Your task to perform on an android device: uninstall "Venmo" Image 0: 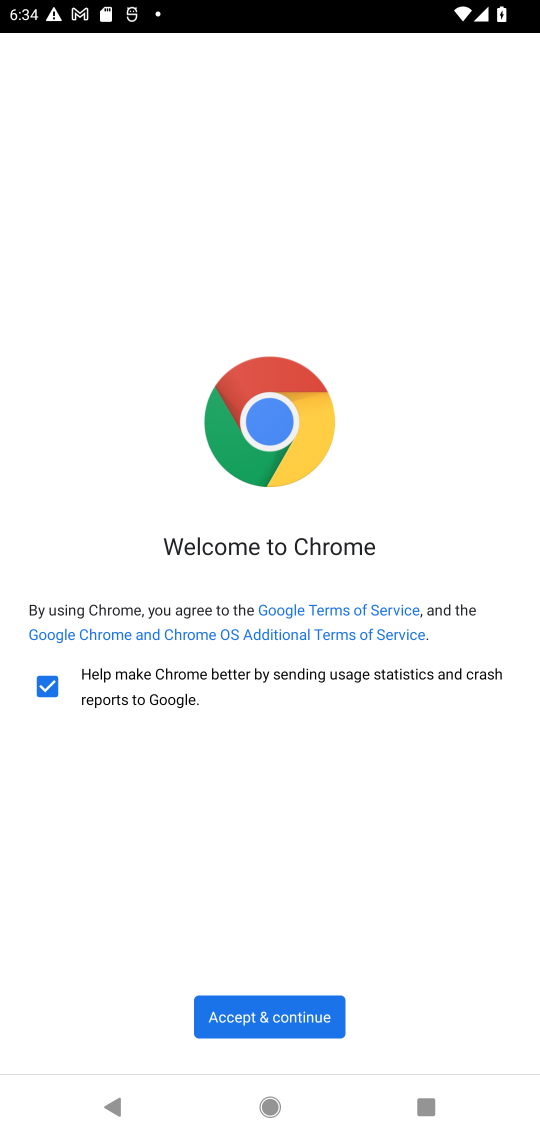
Step 0: press home button
Your task to perform on an android device: uninstall "Venmo" Image 1: 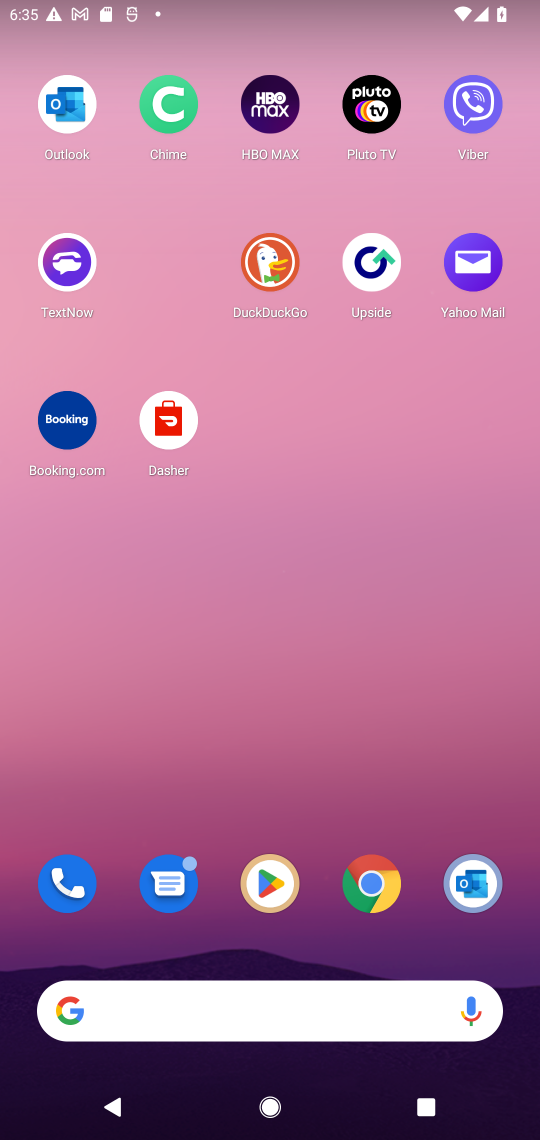
Step 1: click (282, 882)
Your task to perform on an android device: uninstall "Venmo" Image 2: 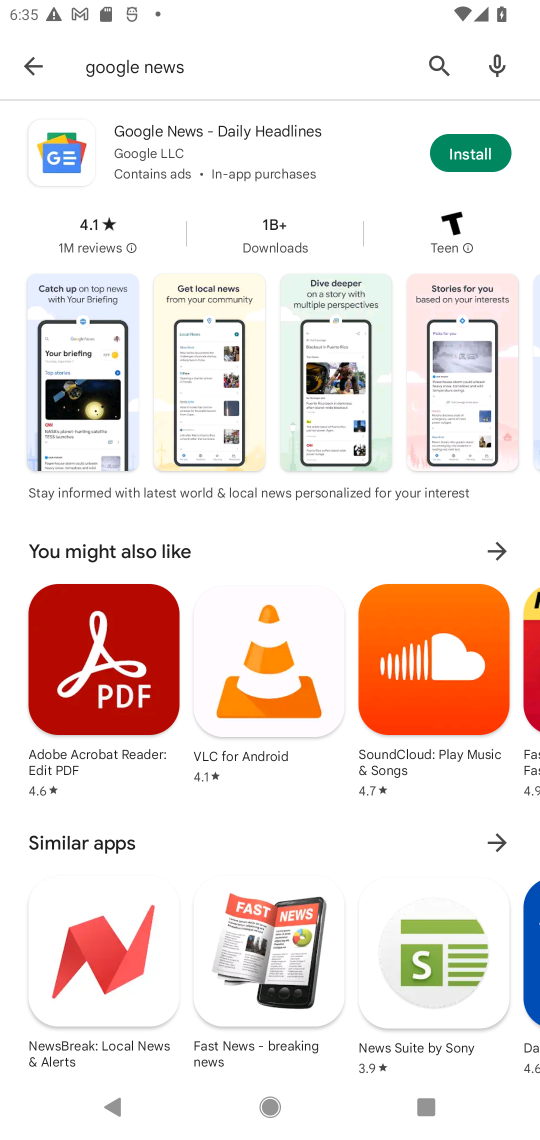
Step 2: click (428, 45)
Your task to perform on an android device: uninstall "Venmo" Image 3: 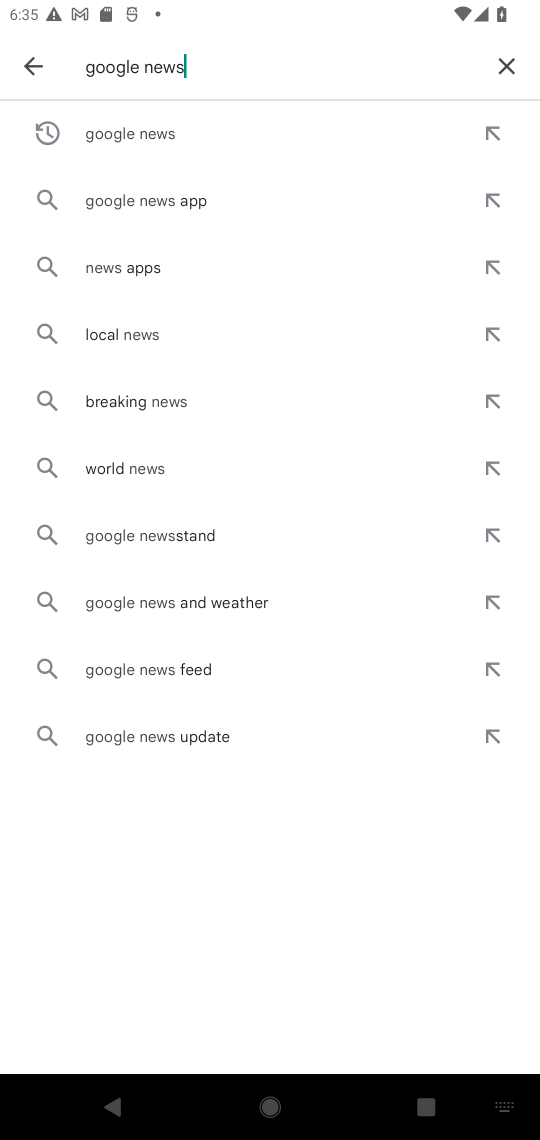
Step 3: click (498, 72)
Your task to perform on an android device: uninstall "Venmo" Image 4: 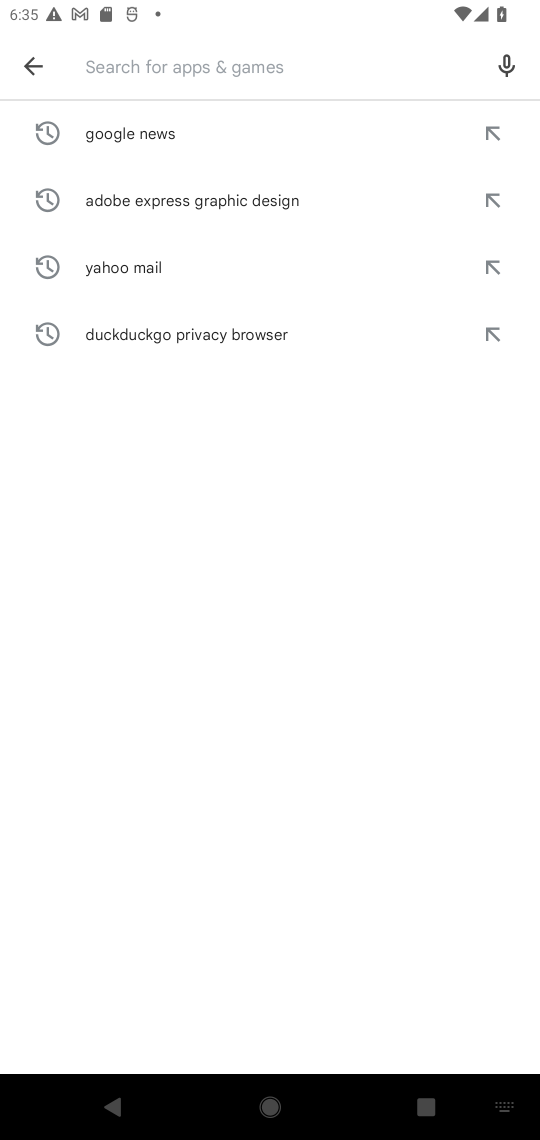
Step 4: type "Venmo"
Your task to perform on an android device: uninstall "Venmo" Image 5: 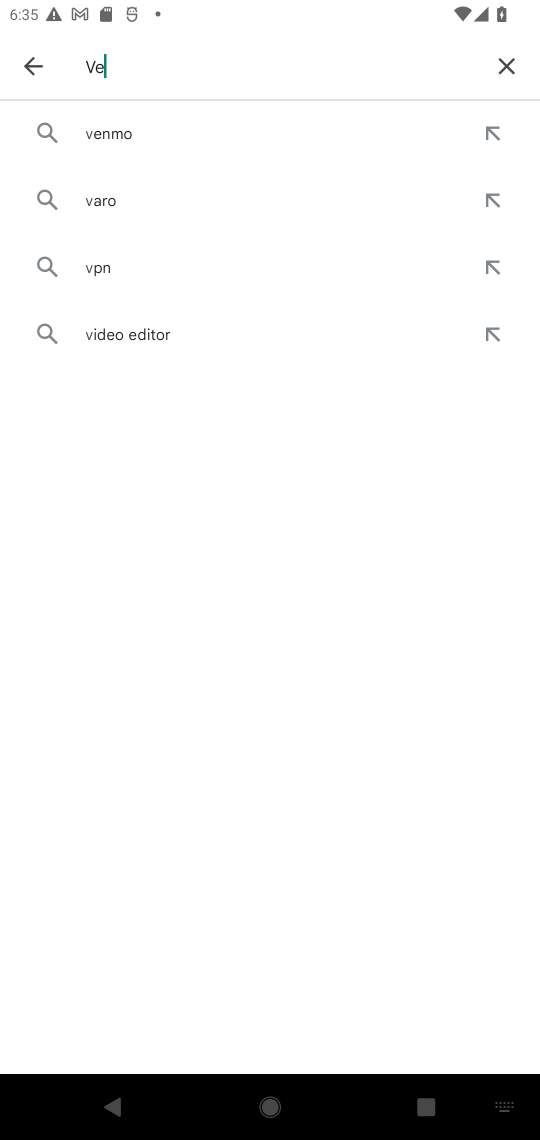
Step 5: type ""
Your task to perform on an android device: uninstall "Venmo" Image 6: 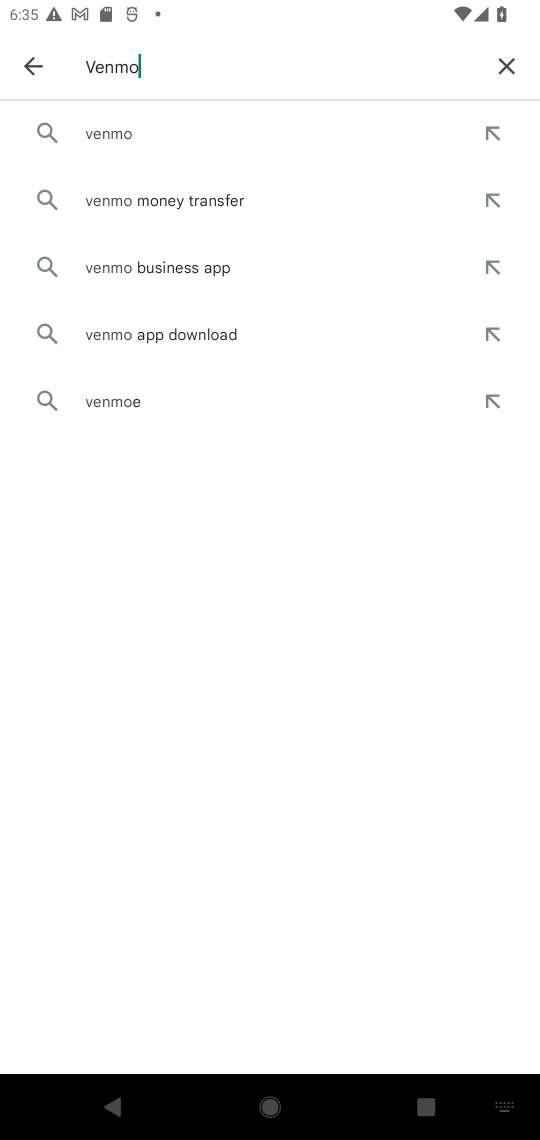
Step 6: click (118, 132)
Your task to perform on an android device: uninstall "Venmo" Image 7: 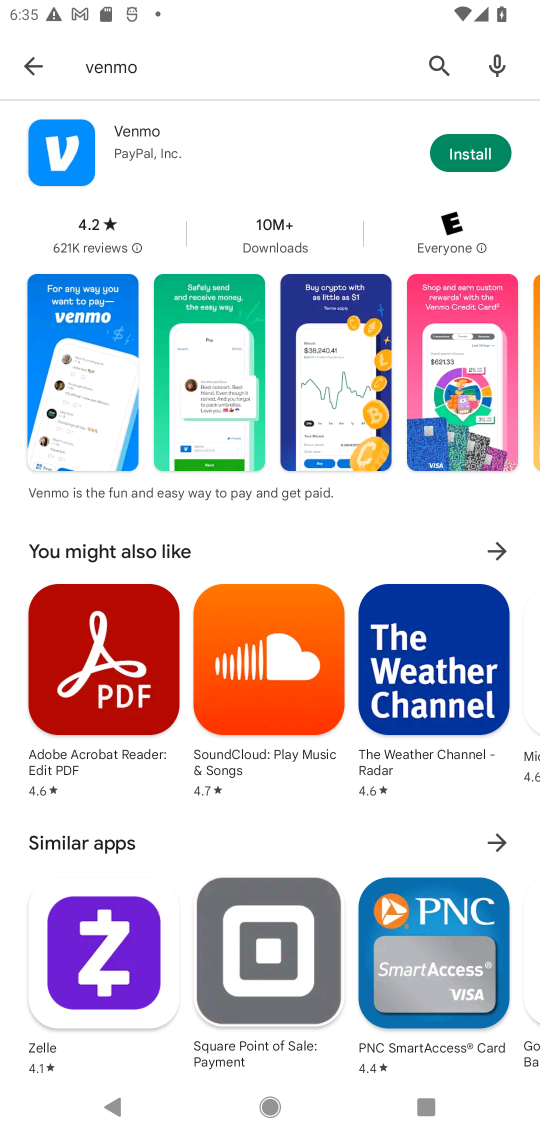
Step 7: task complete